Your task to perform on an android device: allow notifications from all sites in the chrome app Image 0: 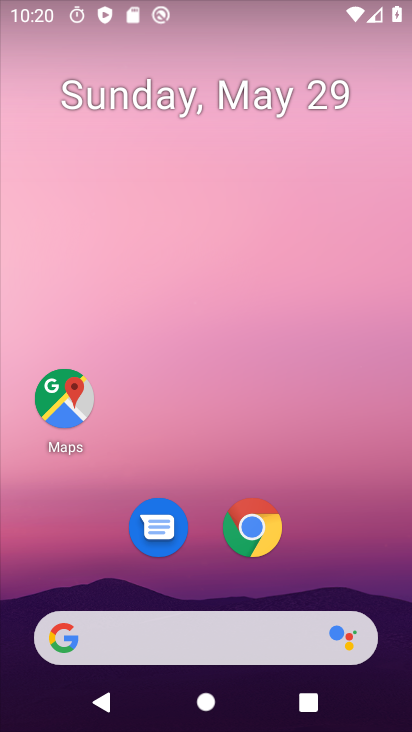
Step 0: click (259, 531)
Your task to perform on an android device: allow notifications from all sites in the chrome app Image 1: 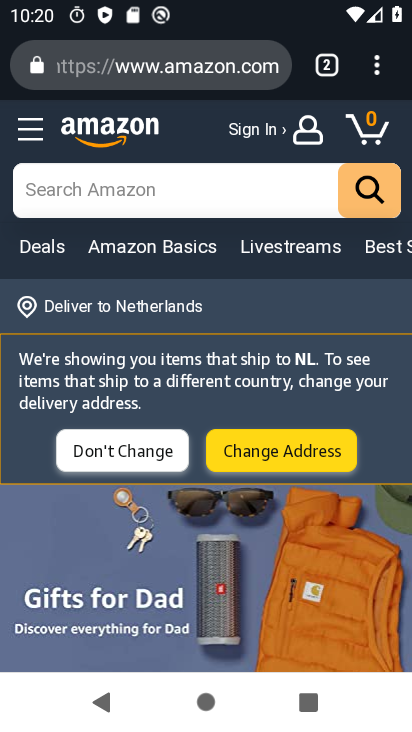
Step 1: click (381, 64)
Your task to perform on an android device: allow notifications from all sites in the chrome app Image 2: 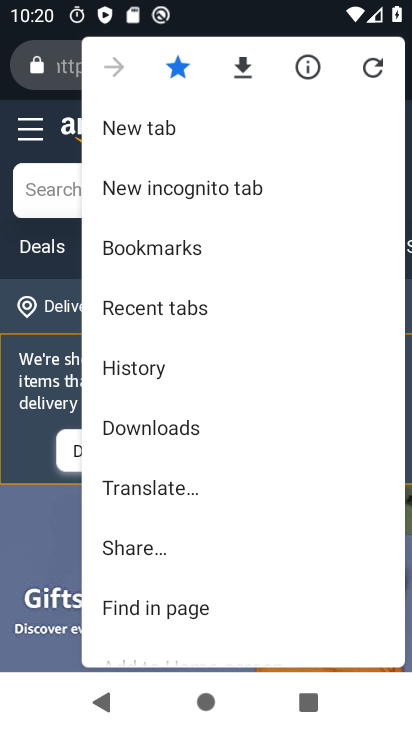
Step 2: drag from (181, 603) to (198, 242)
Your task to perform on an android device: allow notifications from all sites in the chrome app Image 3: 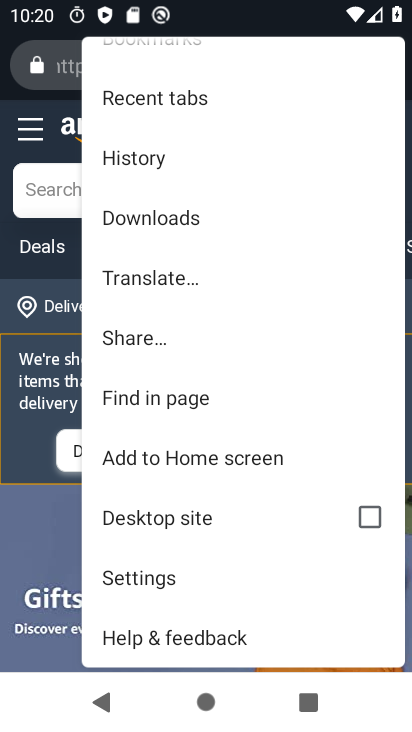
Step 3: click (135, 578)
Your task to perform on an android device: allow notifications from all sites in the chrome app Image 4: 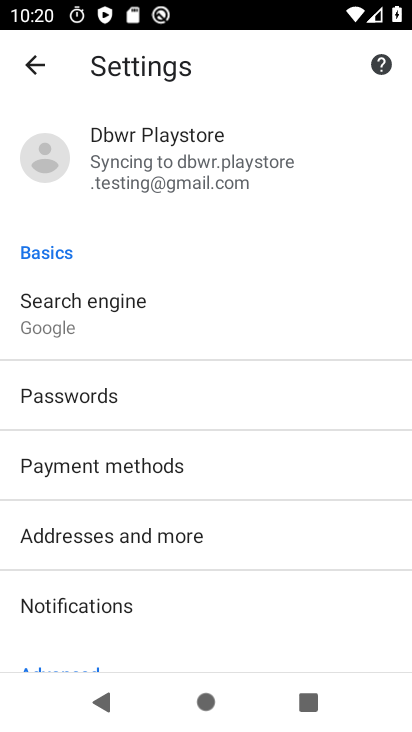
Step 4: drag from (194, 534) to (225, 235)
Your task to perform on an android device: allow notifications from all sites in the chrome app Image 5: 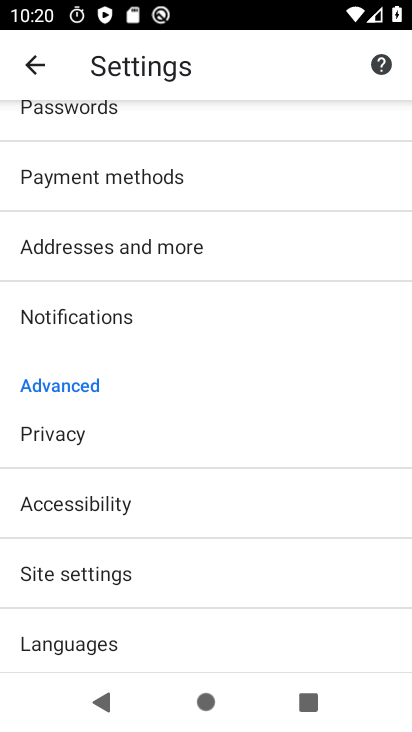
Step 5: click (105, 570)
Your task to perform on an android device: allow notifications from all sites in the chrome app Image 6: 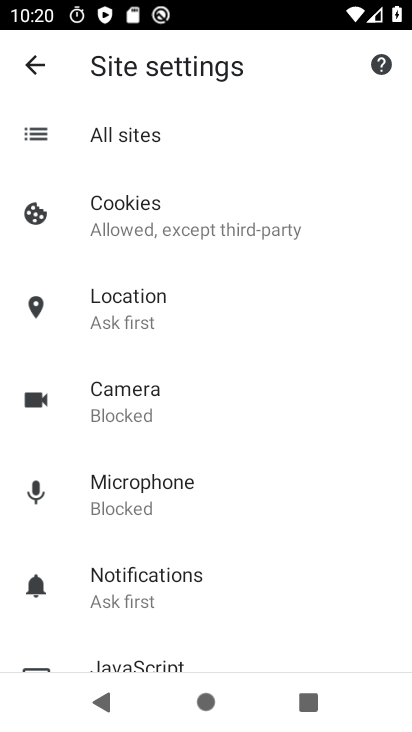
Step 6: click (189, 139)
Your task to perform on an android device: allow notifications from all sites in the chrome app Image 7: 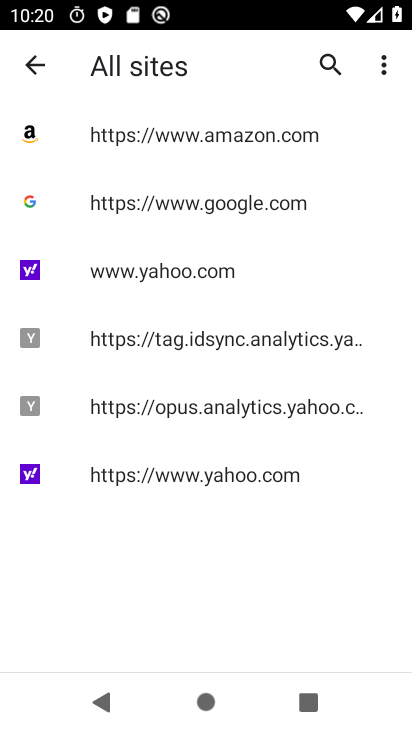
Step 7: click (21, 64)
Your task to perform on an android device: allow notifications from all sites in the chrome app Image 8: 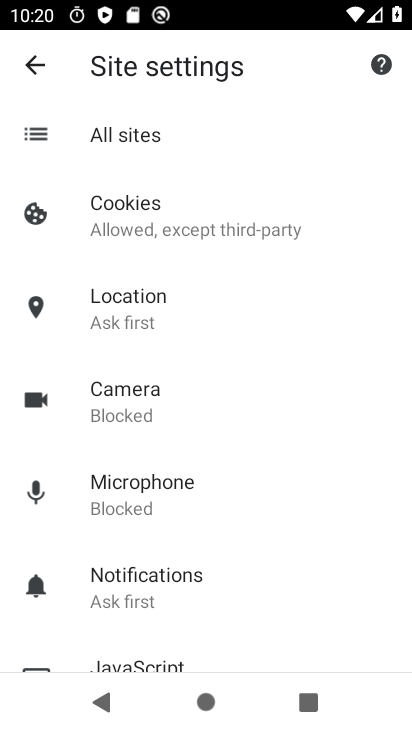
Step 8: click (95, 569)
Your task to perform on an android device: allow notifications from all sites in the chrome app Image 9: 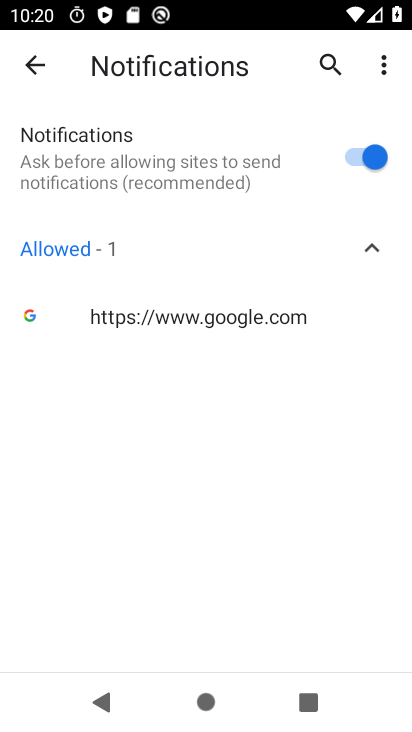
Step 9: task complete